Your task to perform on an android device: open wifi settings Image 0: 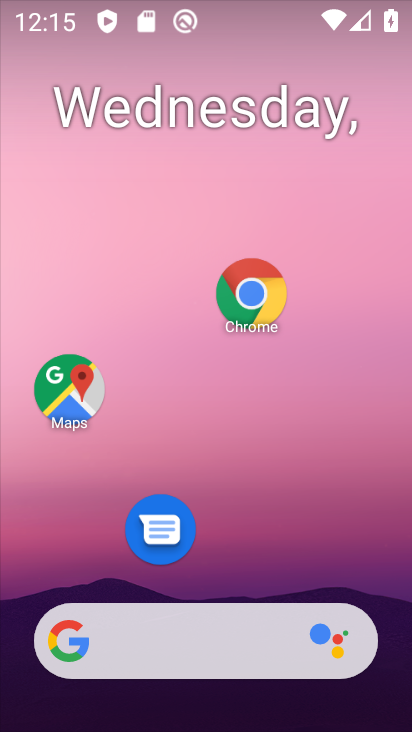
Step 0: drag from (305, 455) to (315, 76)
Your task to perform on an android device: open wifi settings Image 1: 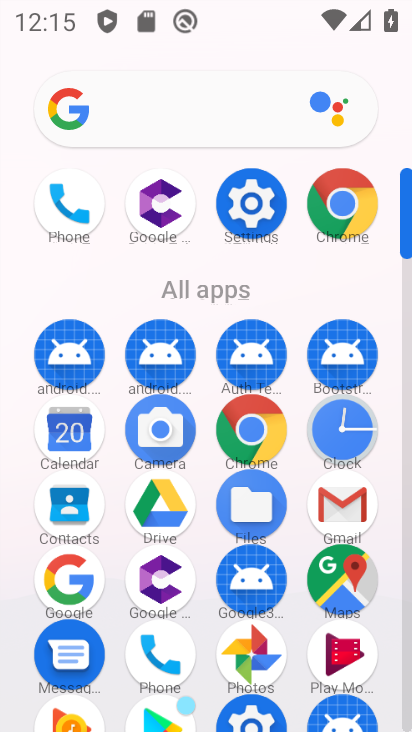
Step 1: click (274, 209)
Your task to perform on an android device: open wifi settings Image 2: 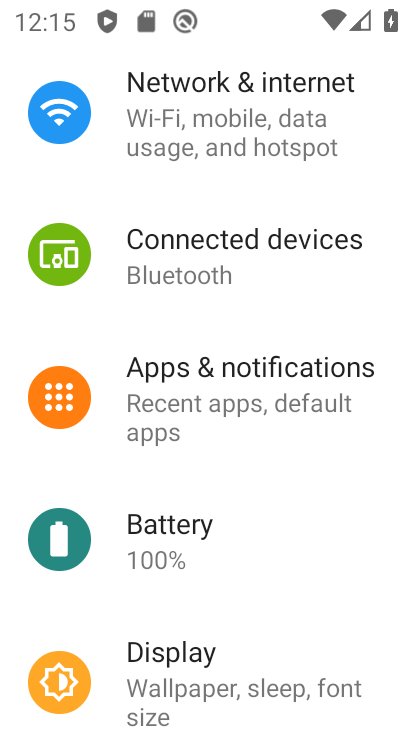
Step 2: drag from (211, 347) to (193, 593)
Your task to perform on an android device: open wifi settings Image 3: 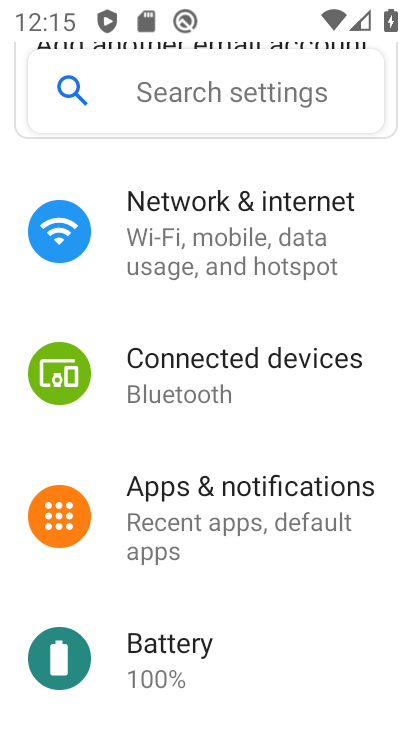
Step 3: click (251, 233)
Your task to perform on an android device: open wifi settings Image 4: 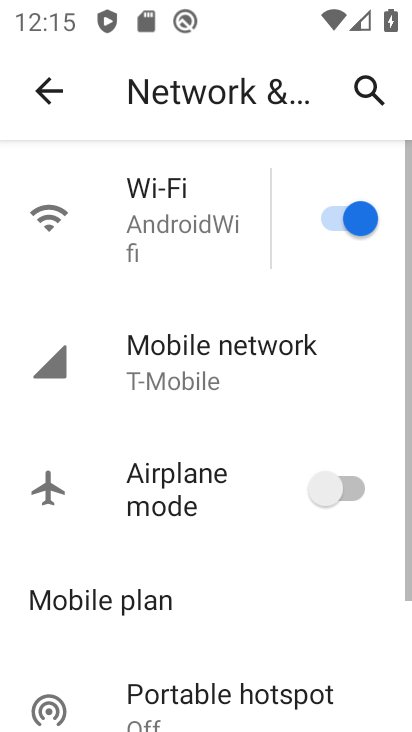
Step 4: click (183, 233)
Your task to perform on an android device: open wifi settings Image 5: 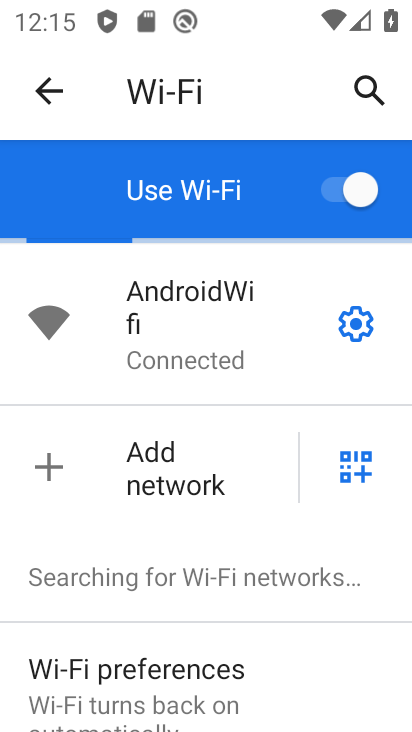
Step 5: task complete